Your task to perform on an android device: turn on translation in the chrome app Image 0: 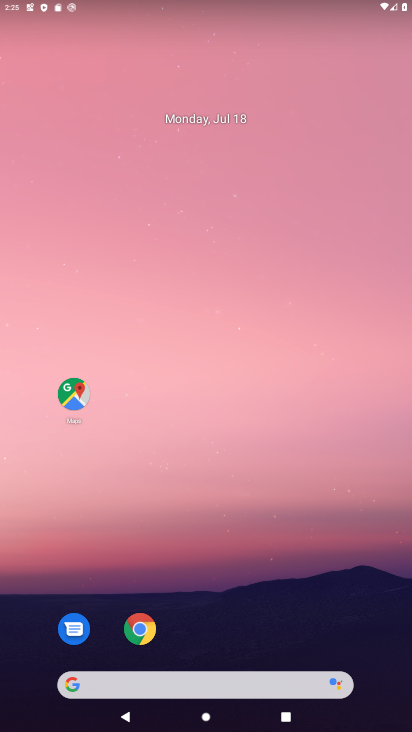
Step 0: drag from (188, 681) to (203, 92)
Your task to perform on an android device: turn on translation in the chrome app Image 1: 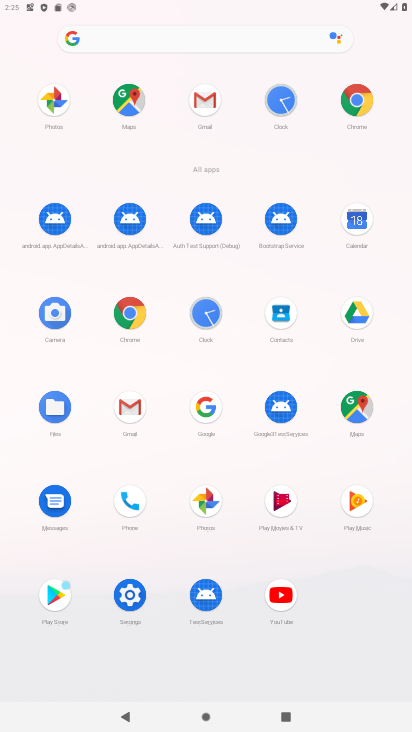
Step 1: click (112, 309)
Your task to perform on an android device: turn on translation in the chrome app Image 2: 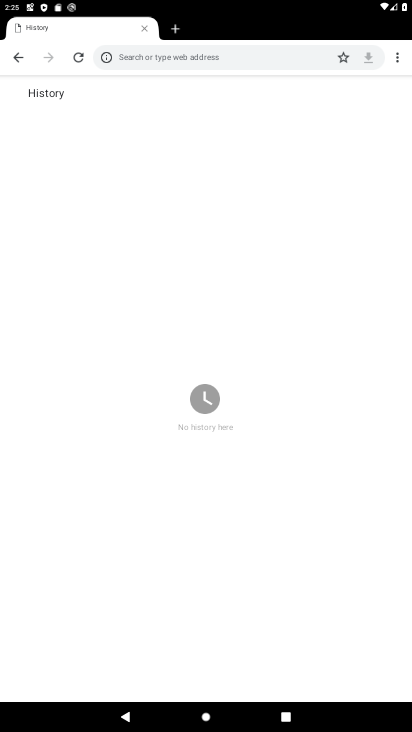
Step 2: drag from (399, 58) to (305, 247)
Your task to perform on an android device: turn on translation in the chrome app Image 3: 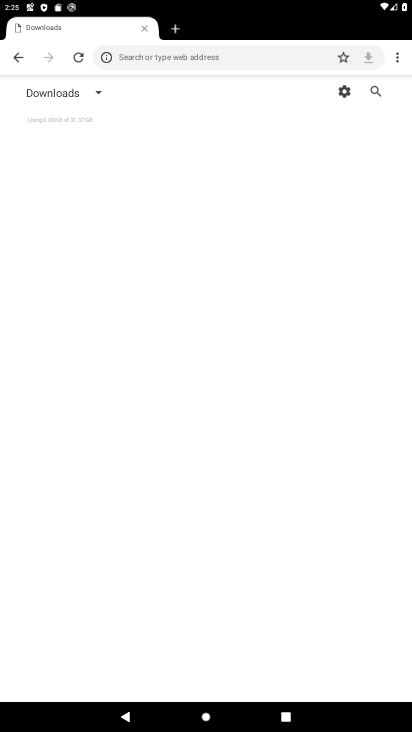
Step 3: click (394, 57)
Your task to perform on an android device: turn on translation in the chrome app Image 4: 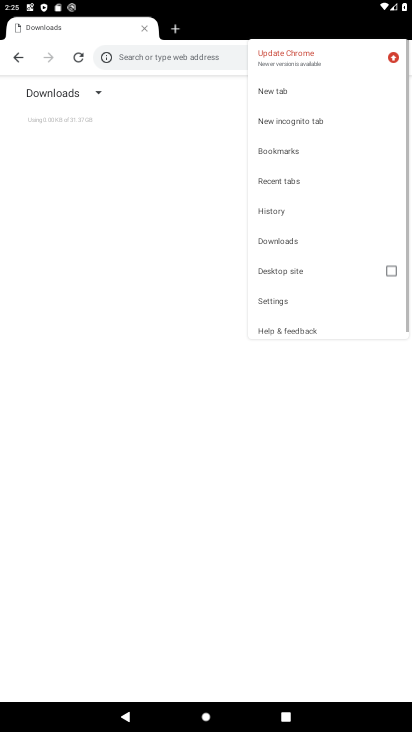
Step 4: click (396, 56)
Your task to perform on an android device: turn on translation in the chrome app Image 5: 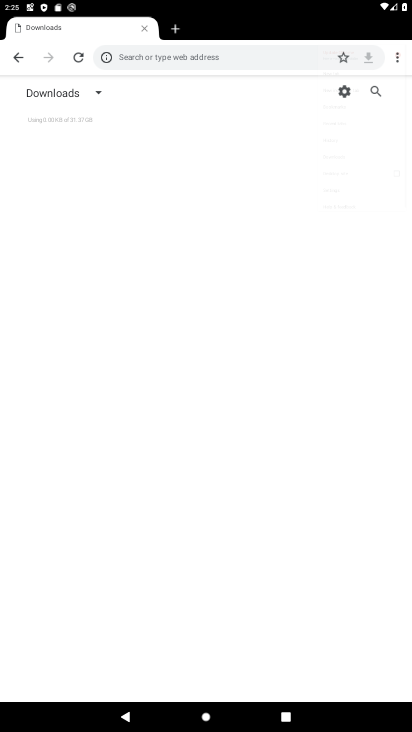
Step 5: click (397, 55)
Your task to perform on an android device: turn on translation in the chrome app Image 6: 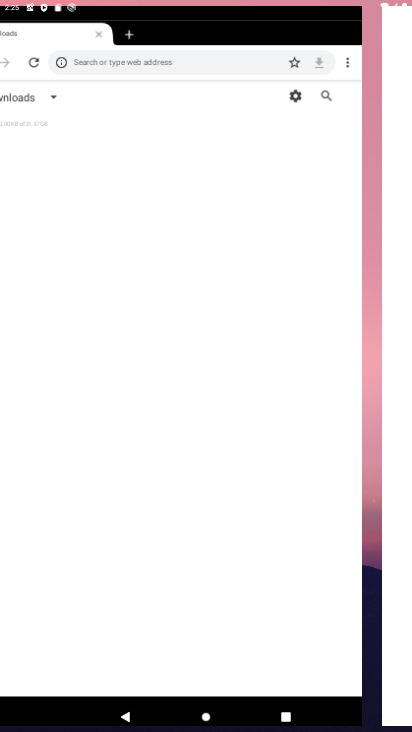
Step 6: click (16, 60)
Your task to perform on an android device: turn on translation in the chrome app Image 7: 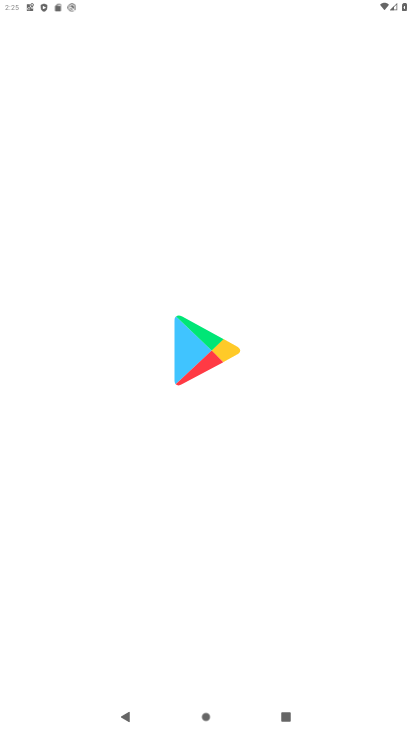
Step 7: click (270, 297)
Your task to perform on an android device: turn on translation in the chrome app Image 8: 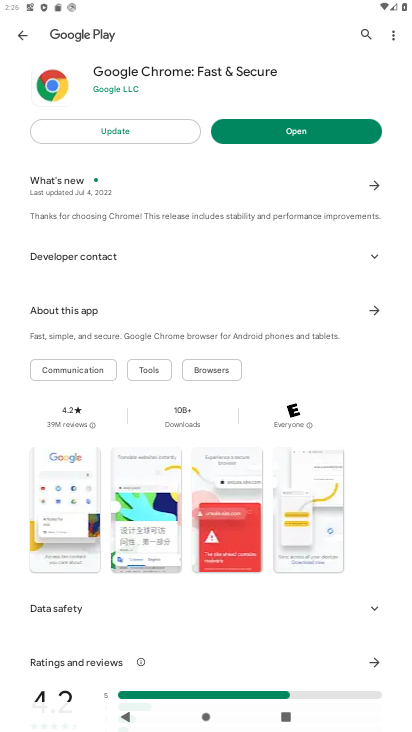
Step 8: task complete